Your task to perform on an android device: Toggle the flashlight Image 0: 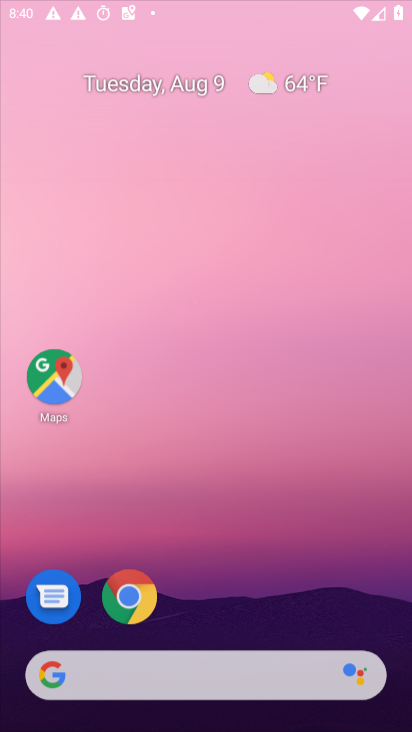
Step 0: press home button
Your task to perform on an android device: Toggle the flashlight Image 1: 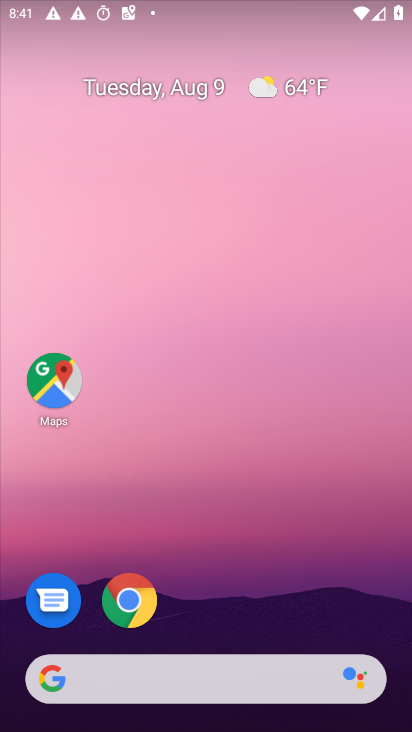
Step 1: task complete